Your task to perform on an android device: open sync settings in chrome Image 0: 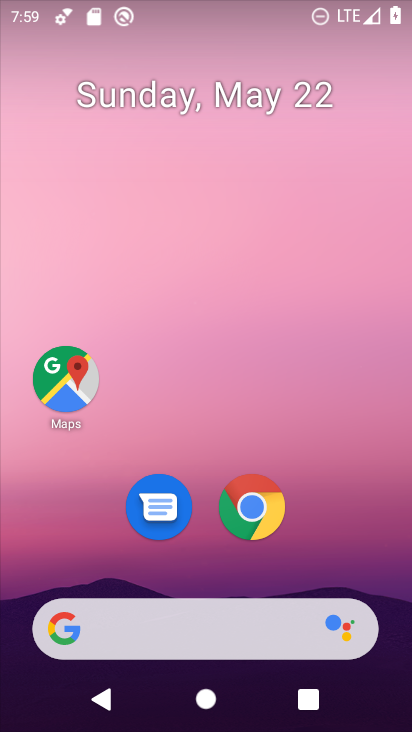
Step 0: click (261, 498)
Your task to perform on an android device: open sync settings in chrome Image 1: 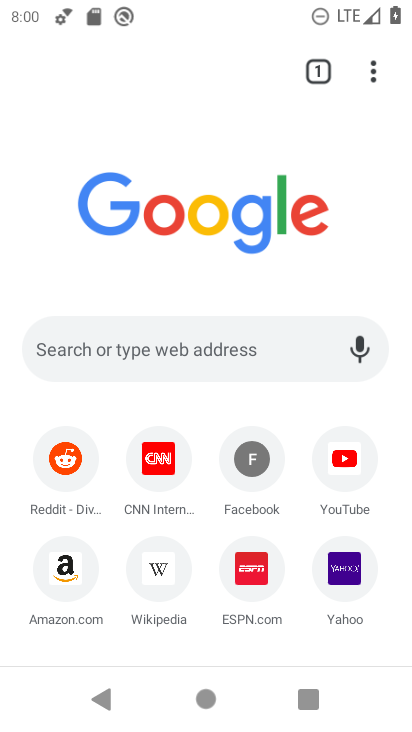
Step 1: click (380, 79)
Your task to perform on an android device: open sync settings in chrome Image 2: 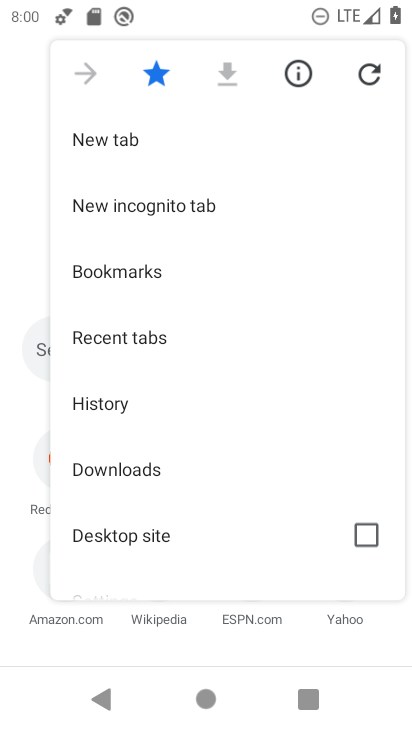
Step 2: drag from (208, 539) to (164, 29)
Your task to perform on an android device: open sync settings in chrome Image 3: 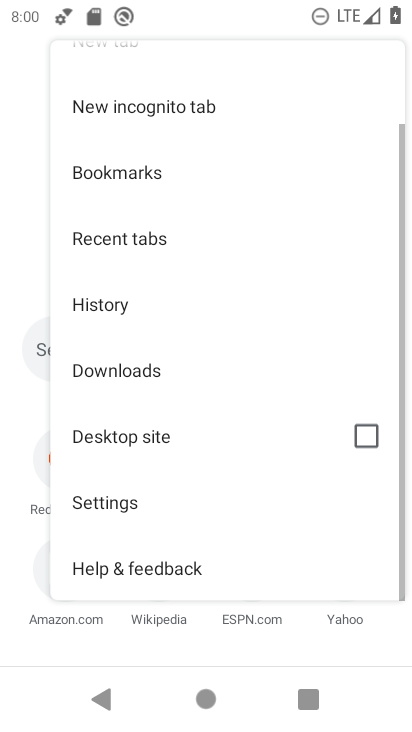
Step 3: click (115, 509)
Your task to perform on an android device: open sync settings in chrome Image 4: 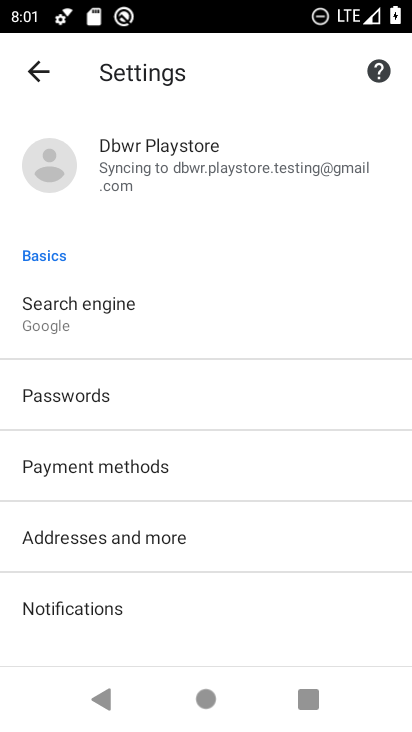
Step 4: click (96, 310)
Your task to perform on an android device: open sync settings in chrome Image 5: 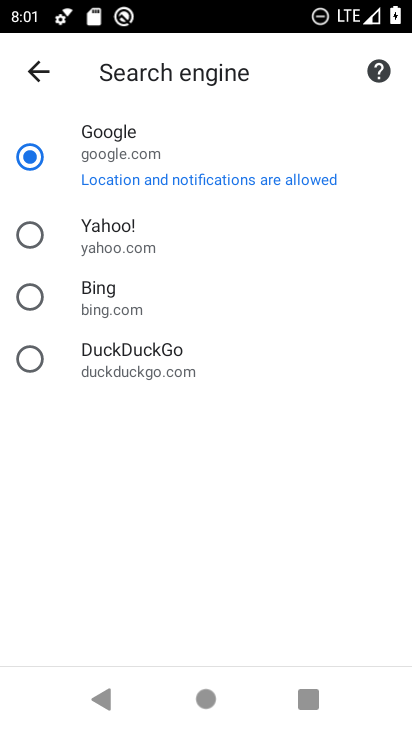
Step 5: click (43, 68)
Your task to perform on an android device: open sync settings in chrome Image 6: 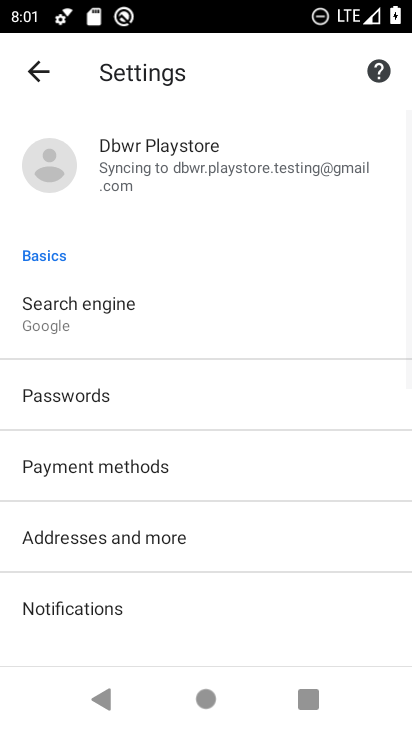
Step 6: click (270, 151)
Your task to perform on an android device: open sync settings in chrome Image 7: 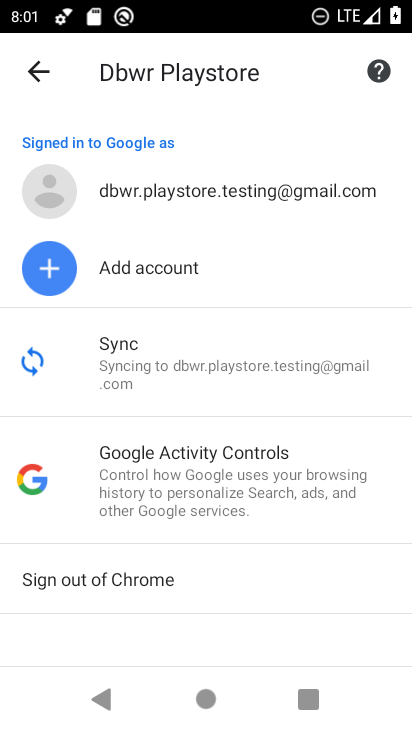
Step 7: task complete